Your task to perform on an android device: delete browsing data in the chrome app Image 0: 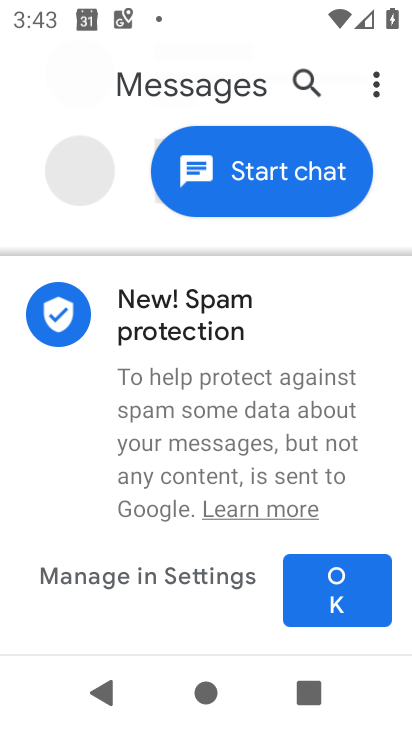
Step 0: press home button
Your task to perform on an android device: delete browsing data in the chrome app Image 1: 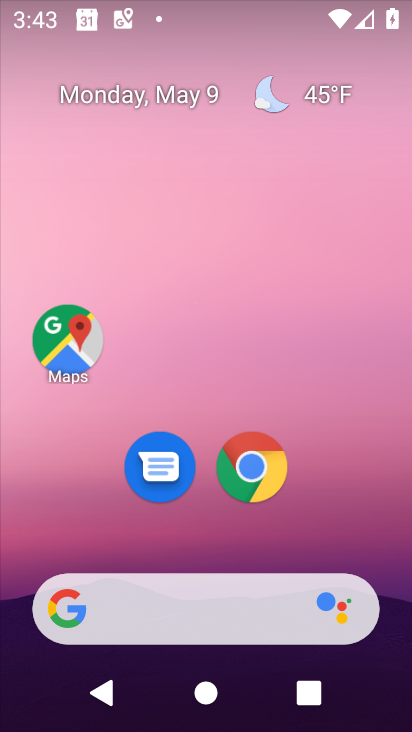
Step 1: click (272, 487)
Your task to perform on an android device: delete browsing data in the chrome app Image 2: 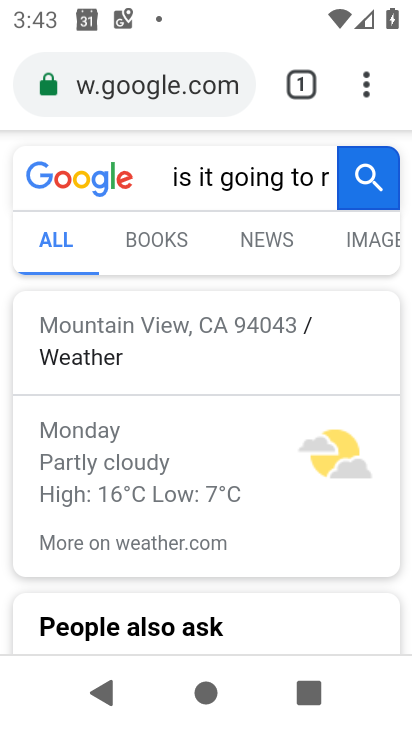
Step 2: drag from (366, 81) to (263, 470)
Your task to perform on an android device: delete browsing data in the chrome app Image 3: 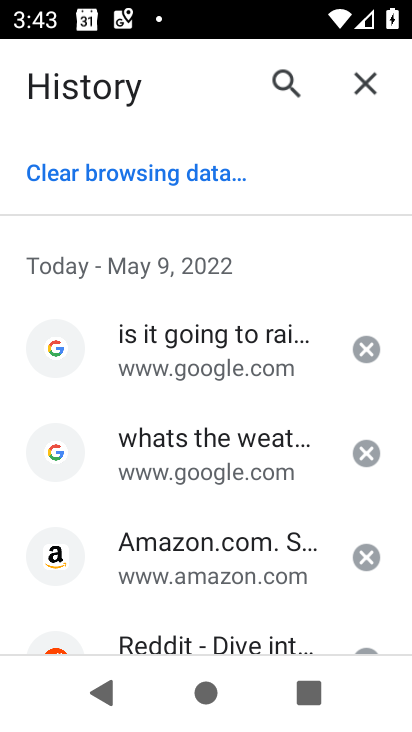
Step 3: click (111, 170)
Your task to perform on an android device: delete browsing data in the chrome app Image 4: 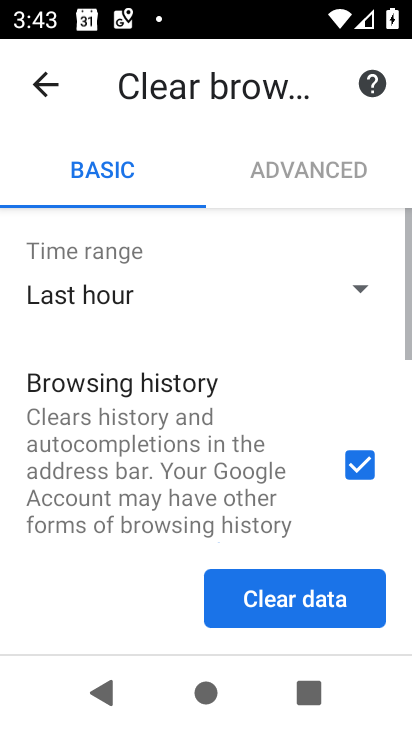
Step 4: drag from (294, 493) to (303, 219)
Your task to perform on an android device: delete browsing data in the chrome app Image 5: 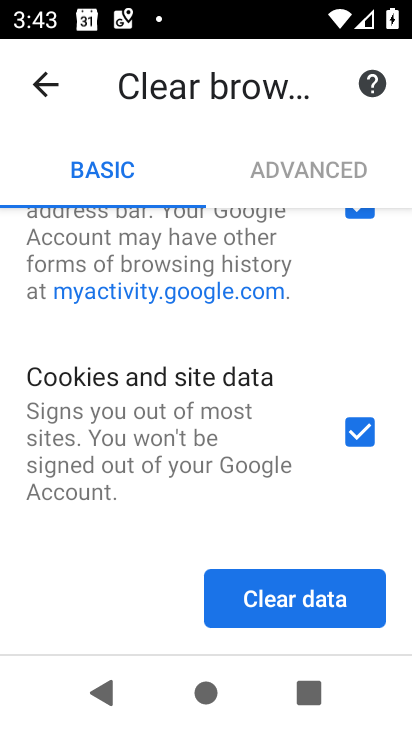
Step 5: click (365, 429)
Your task to perform on an android device: delete browsing data in the chrome app Image 6: 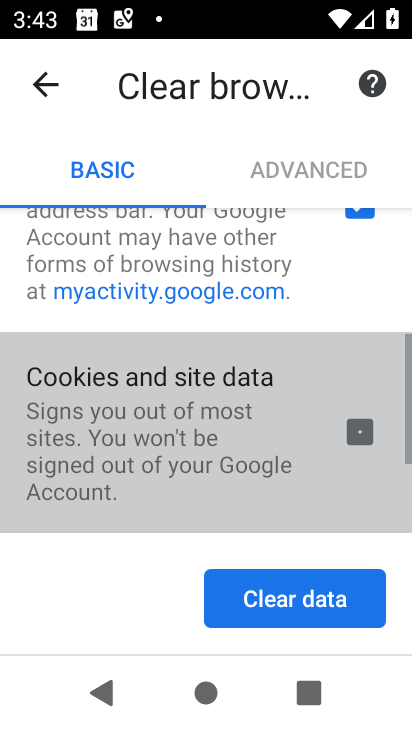
Step 6: drag from (319, 496) to (350, 281)
Your task to perform on an android device: delete browsing data in the chrome app Image 7: 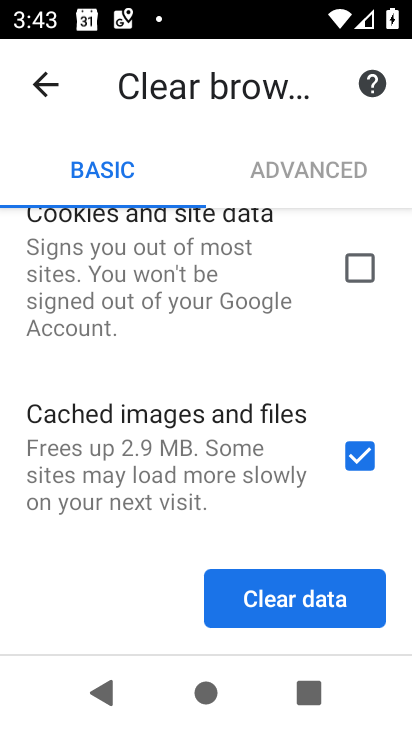
Step 7: click (364, 458)
Your task to perform on an android device: delete browsing data in the chrome app Image 8: 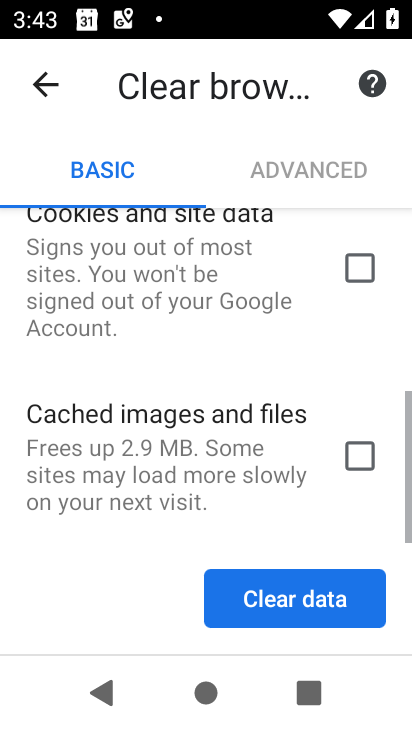
Step 8: drag from (257, 332) to (311, 542)
Your task to perform on an android device: delete browsing data in the chrome app Image 9: 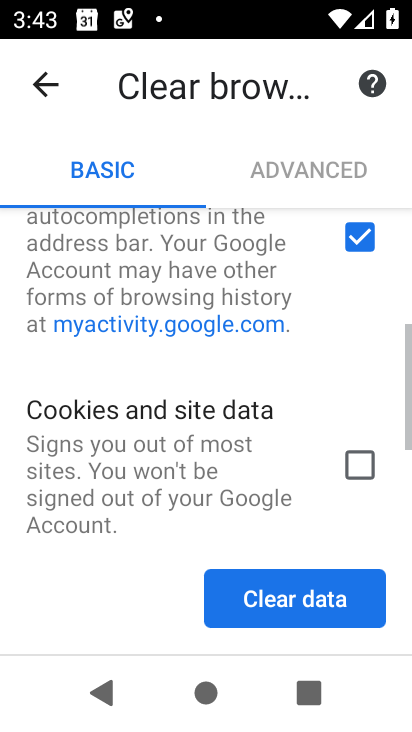
Step 9: drag from (292, 423) to (327, 529)
Your task to perform on an android device: delete browsing data in the chrome app Image 10: 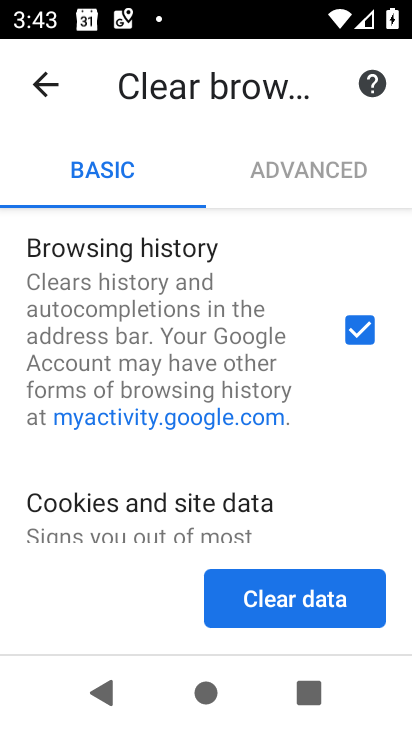
Step 10: click (322, 593)
Your task to perform on an android device: delete browsing data in the chrome app Image 11: 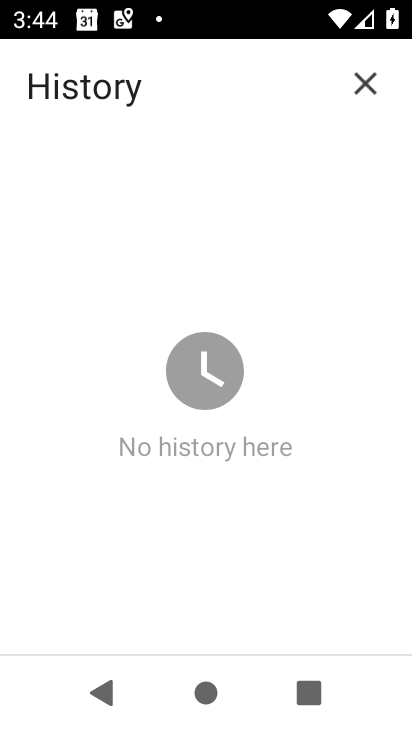
Step 11: task complete